Your task to perform on an android device: Go to Yahoo.com Image 0: 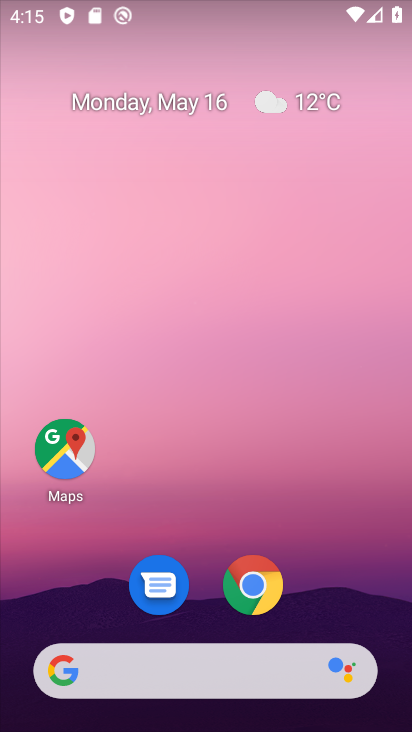
Step 0: click (244, 662)
Your task to perform on an android device: Go to Yahoo.com Image 1: 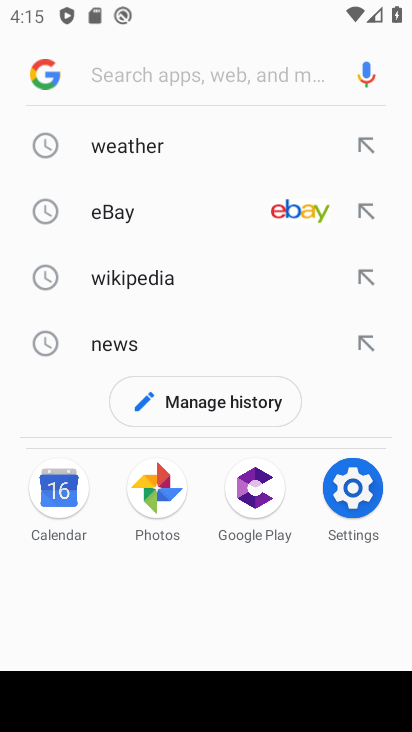
Step 1: type "yahoo.com"
Your task to perform on an android device: Go to Yahoo.com Image 2: 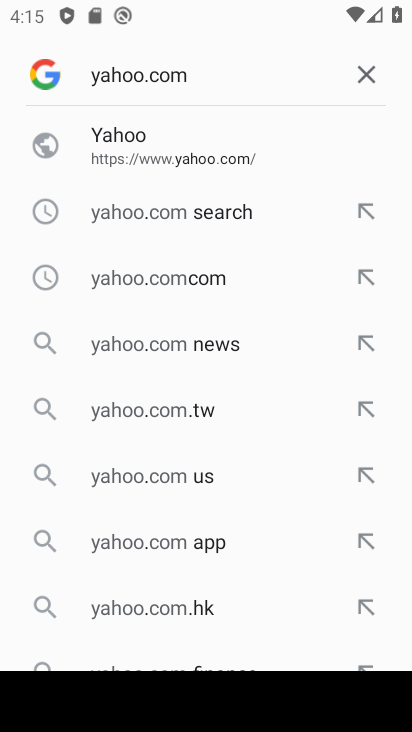
Step 2: click (88, 134)
Your task to perform on an android device: Go to Yahoo.com Image 3: 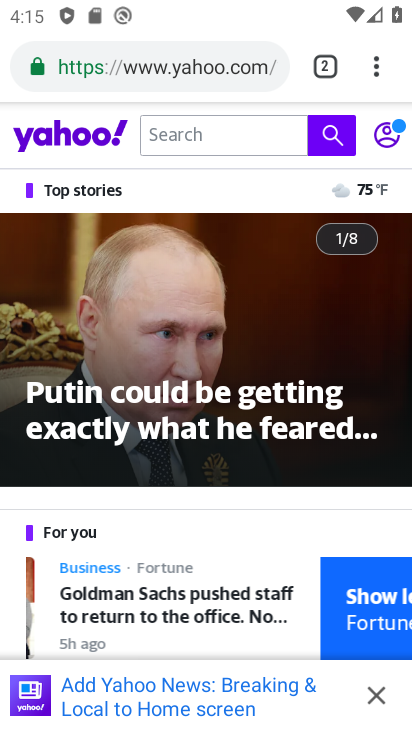
Step 3: task complete